Your task to perform on an android device: Install the Uber app Image 0: 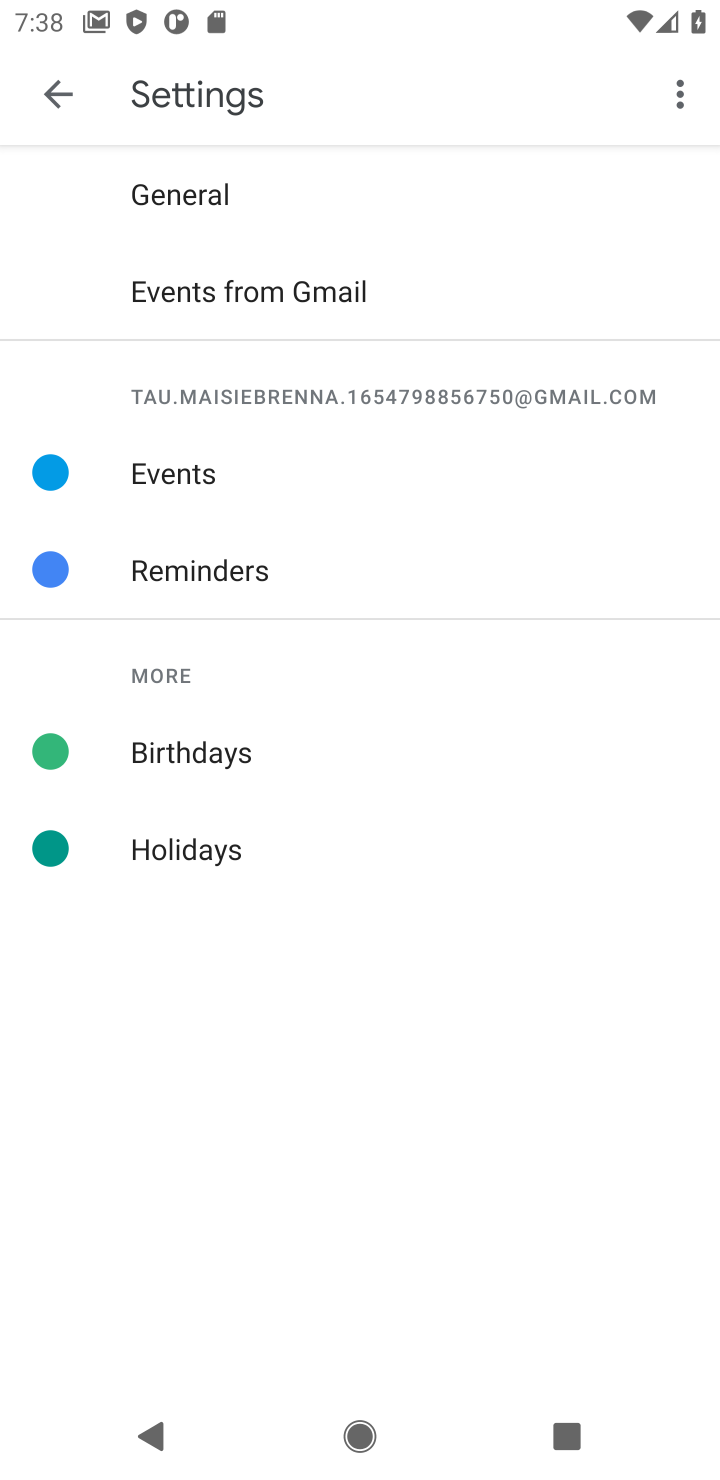
Step 0: press home button
Your task to perform on an android device: Install the Uber app Image 1: 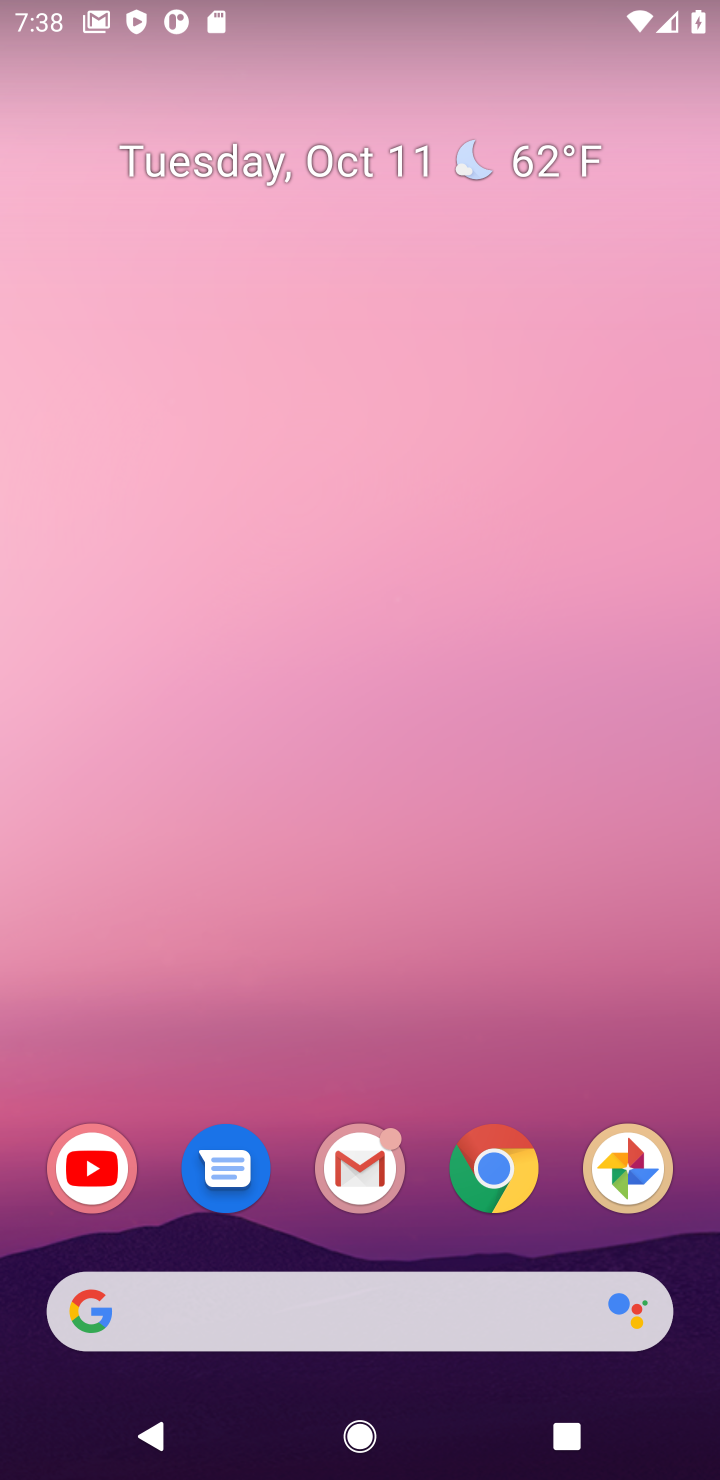
Step 1: drag from (381, 1042) to (457, 552)
Your task to perform on an android device: Install the Uber app Image 2: 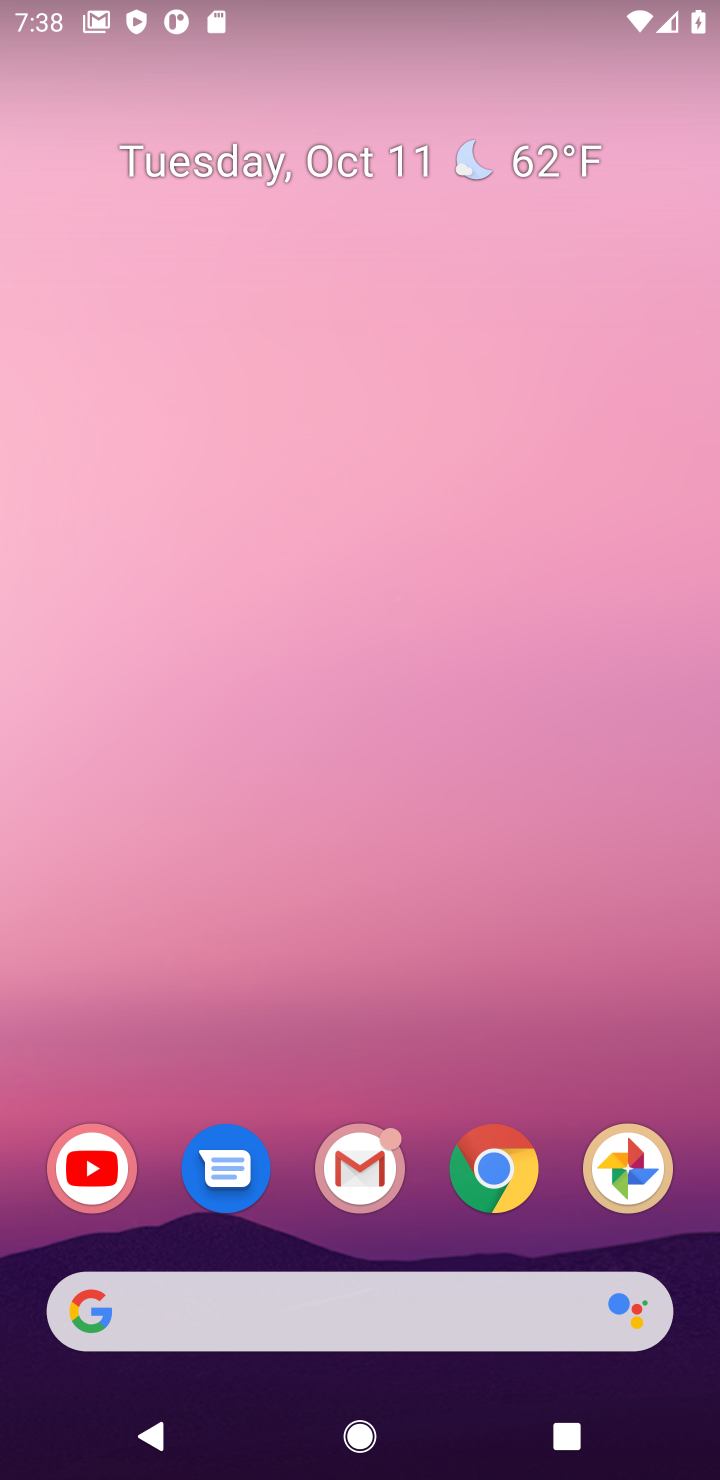
Step 2: click (398, 42)
Your task to perform on an android device: Install the Uber app Image 3: 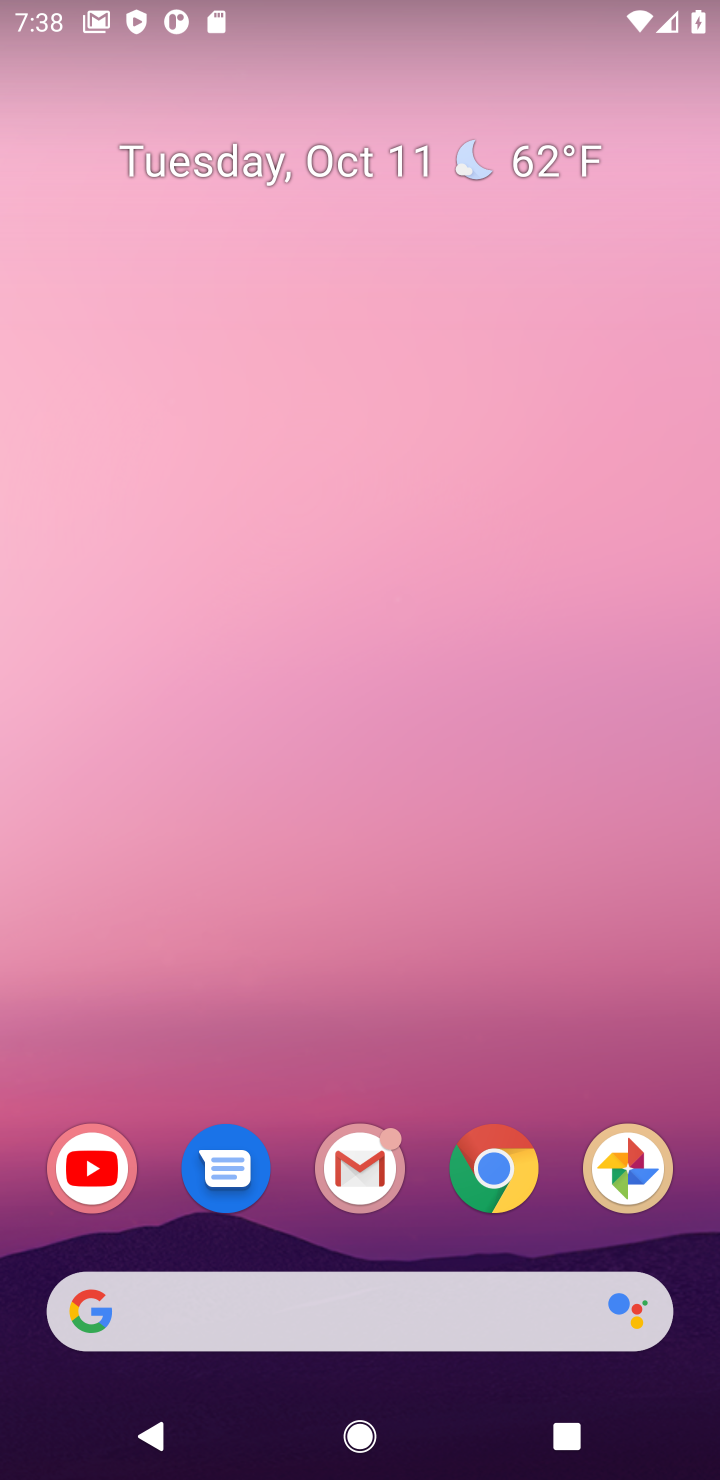
Step 3: drag from (284, 956) to (353, 480)
Your task to perform on an android device: Install the Uber app Image 4: 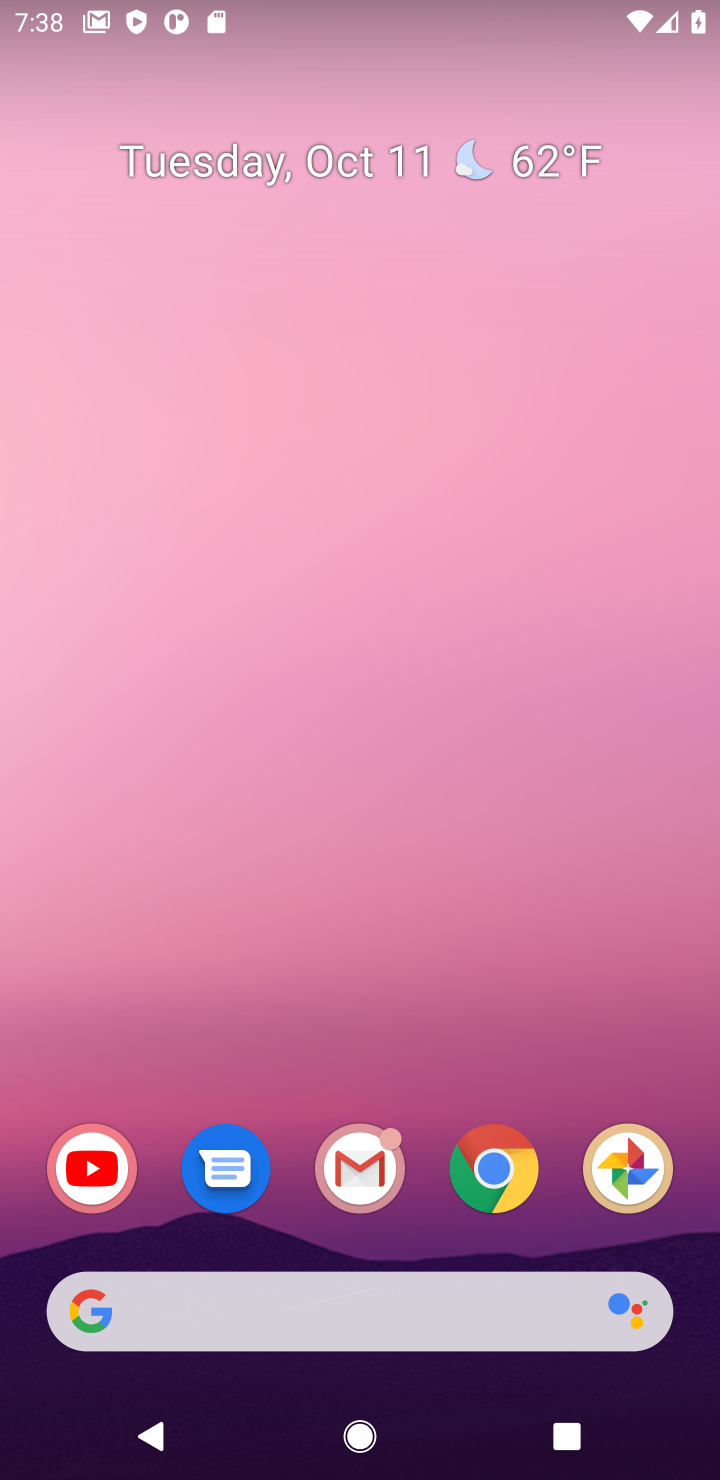
Step 4: drag from (419, 567) to (430, 330)
Your task to perform on an android device: Install the Uber app Image 5: 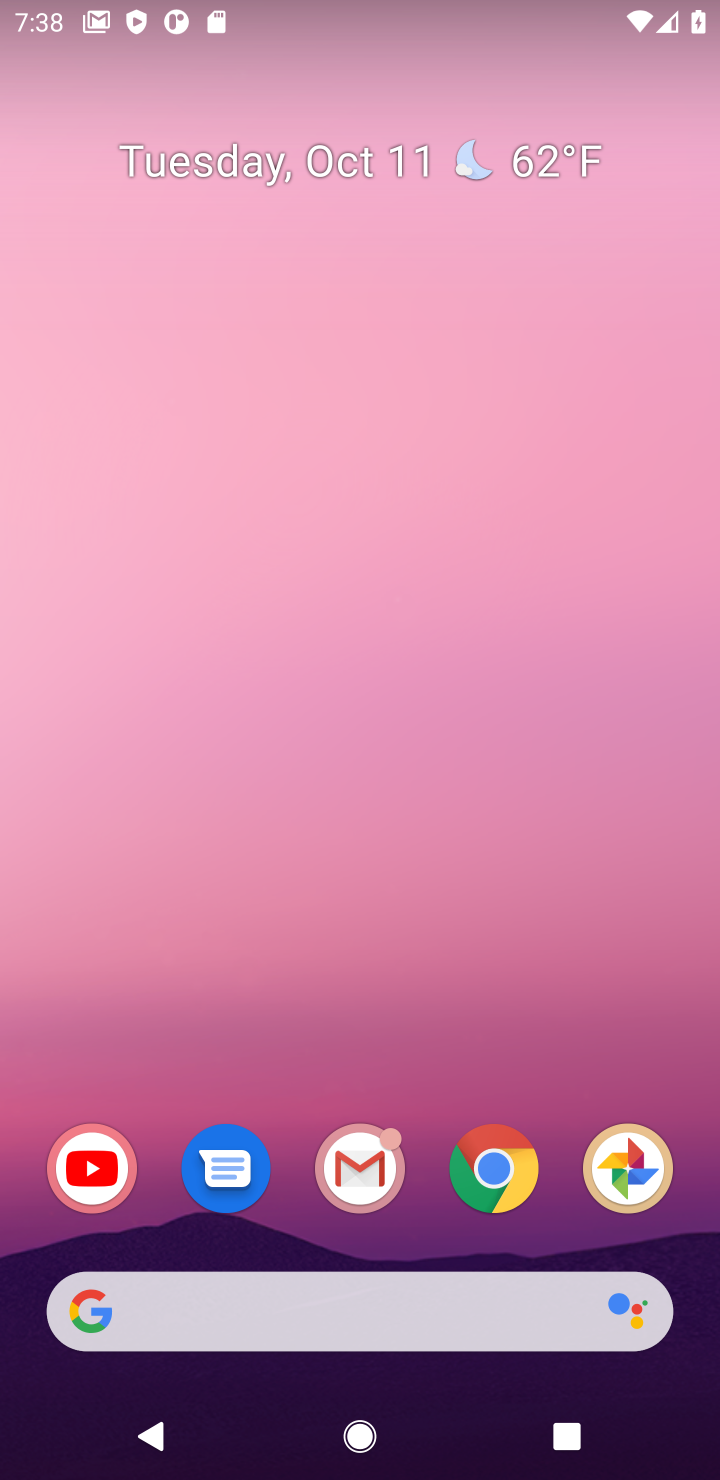
Step 5: drag from (467, 958) to (431, 255)
Your task to perform on an android device: Install the Uber app Image 6: 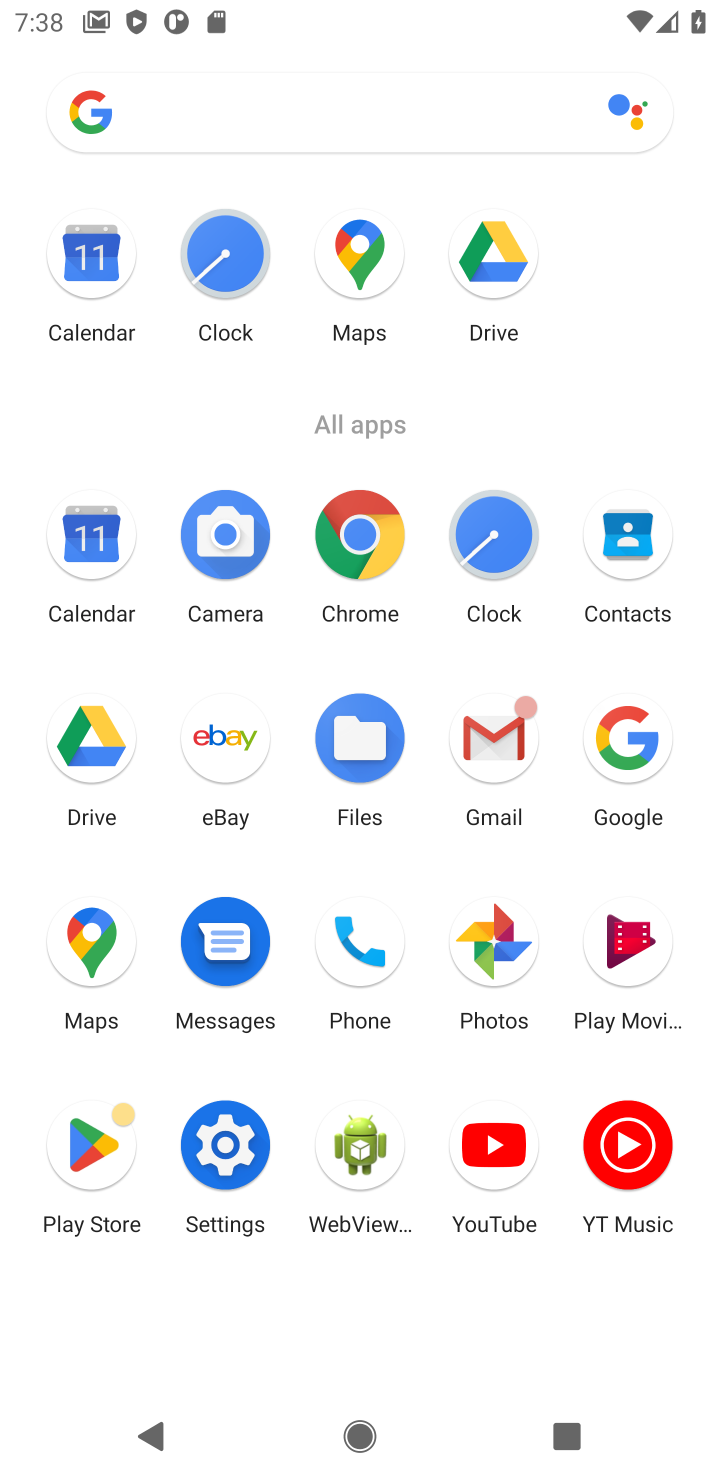
Step 6: click (78, 1158)
Your task to perform on an android device: Install the Uber app Image 7: 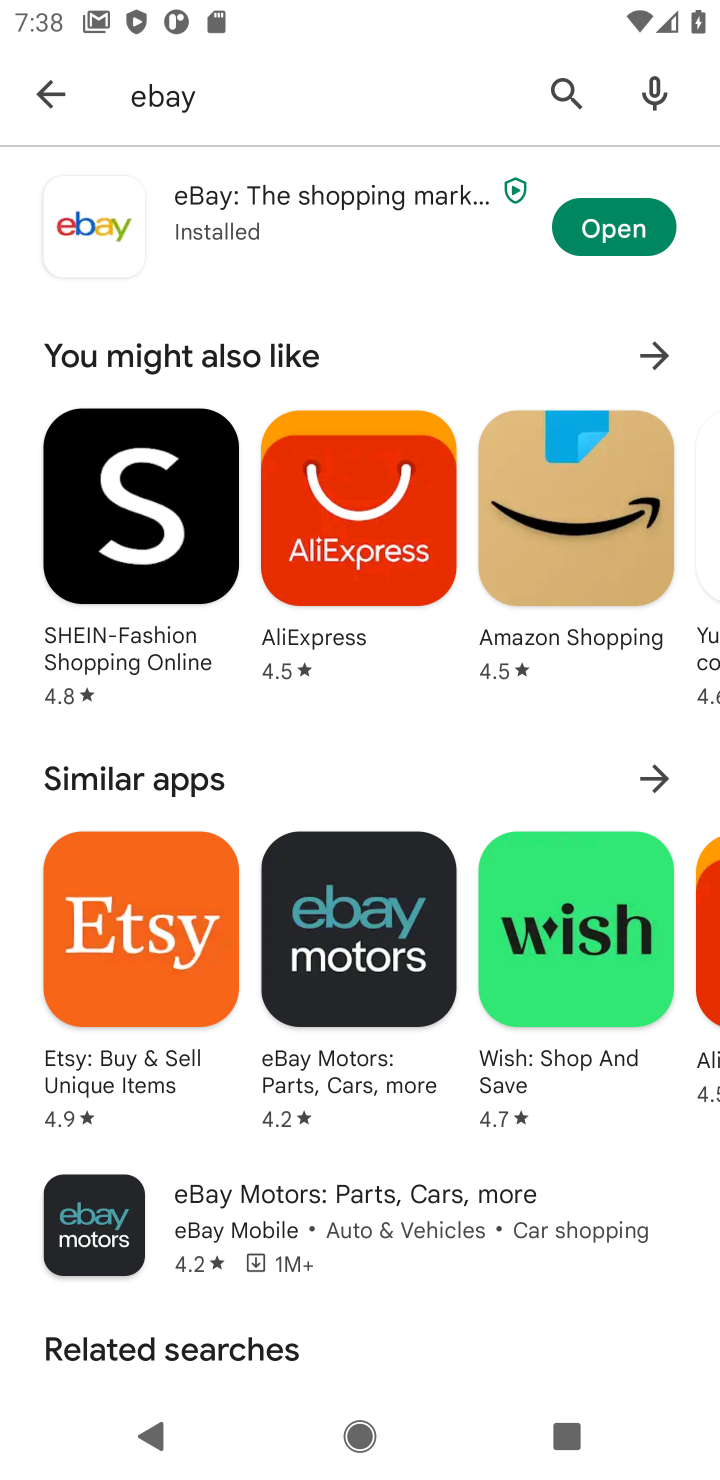
Step 7: click (560, 98)
Your task to perform on an android device: Install the Uber app Image 8: 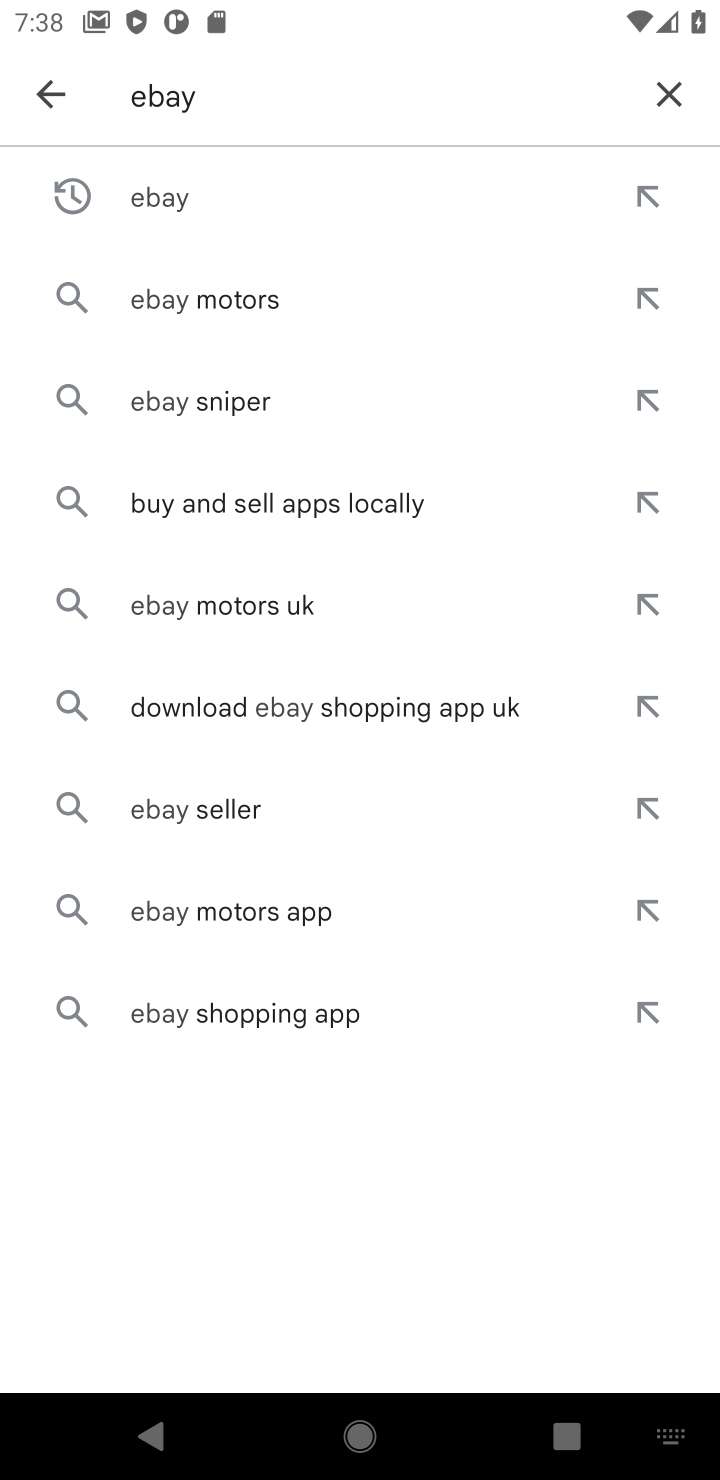
Step 8: click (669, 95)
Your task to perform on an android device: Install the Uber app Image 9: 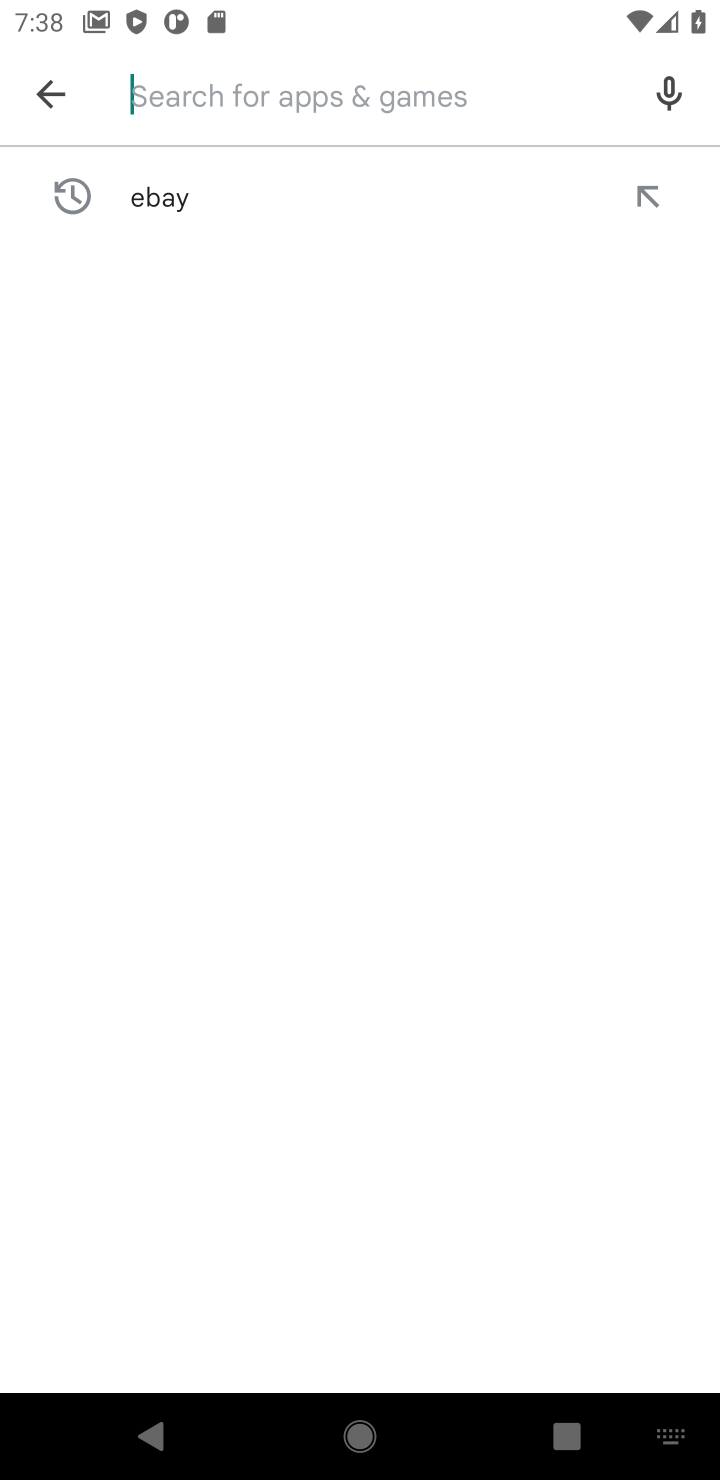
Step 9: type "uber"
Your task to perform on an android device: Install the Uber app Image 10: 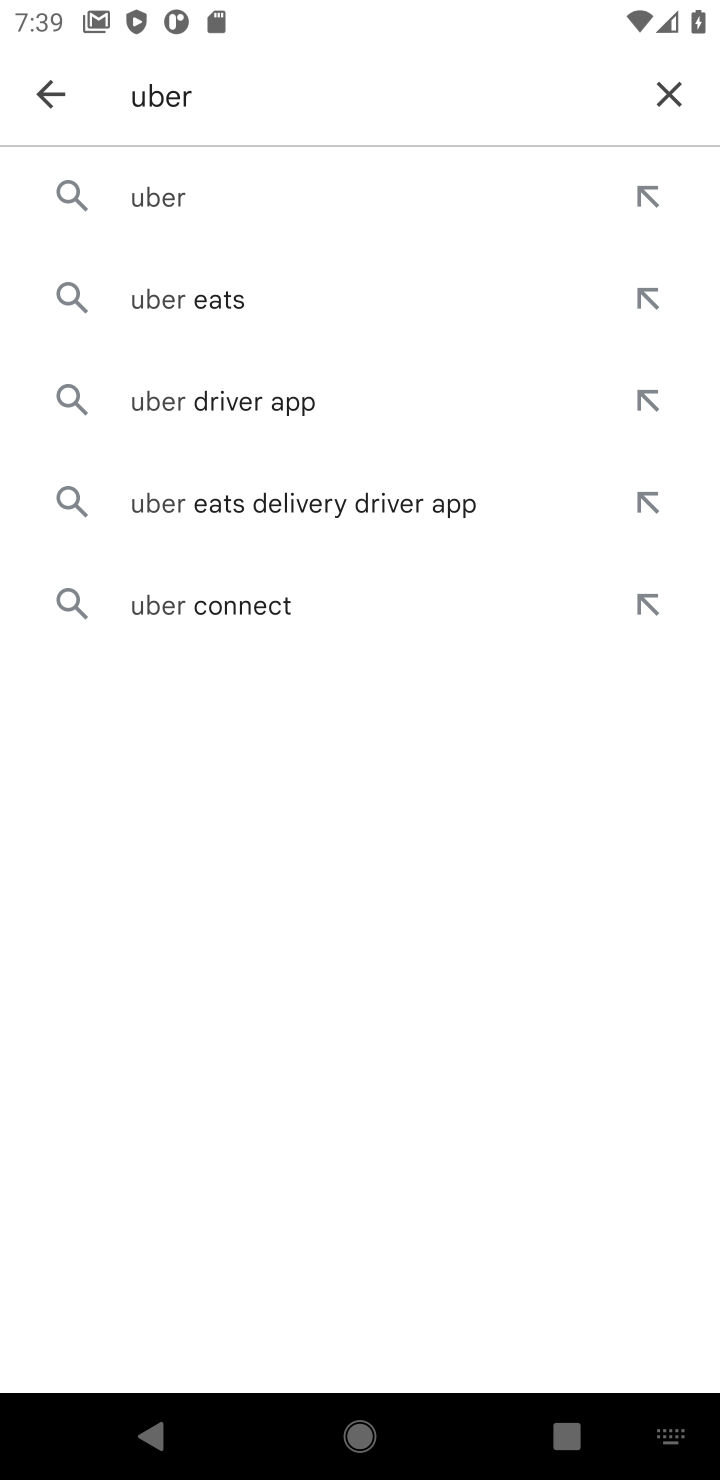
Step 10: click (197, 397)
Your task to perform on an android device: Install the Uber app Image 11: 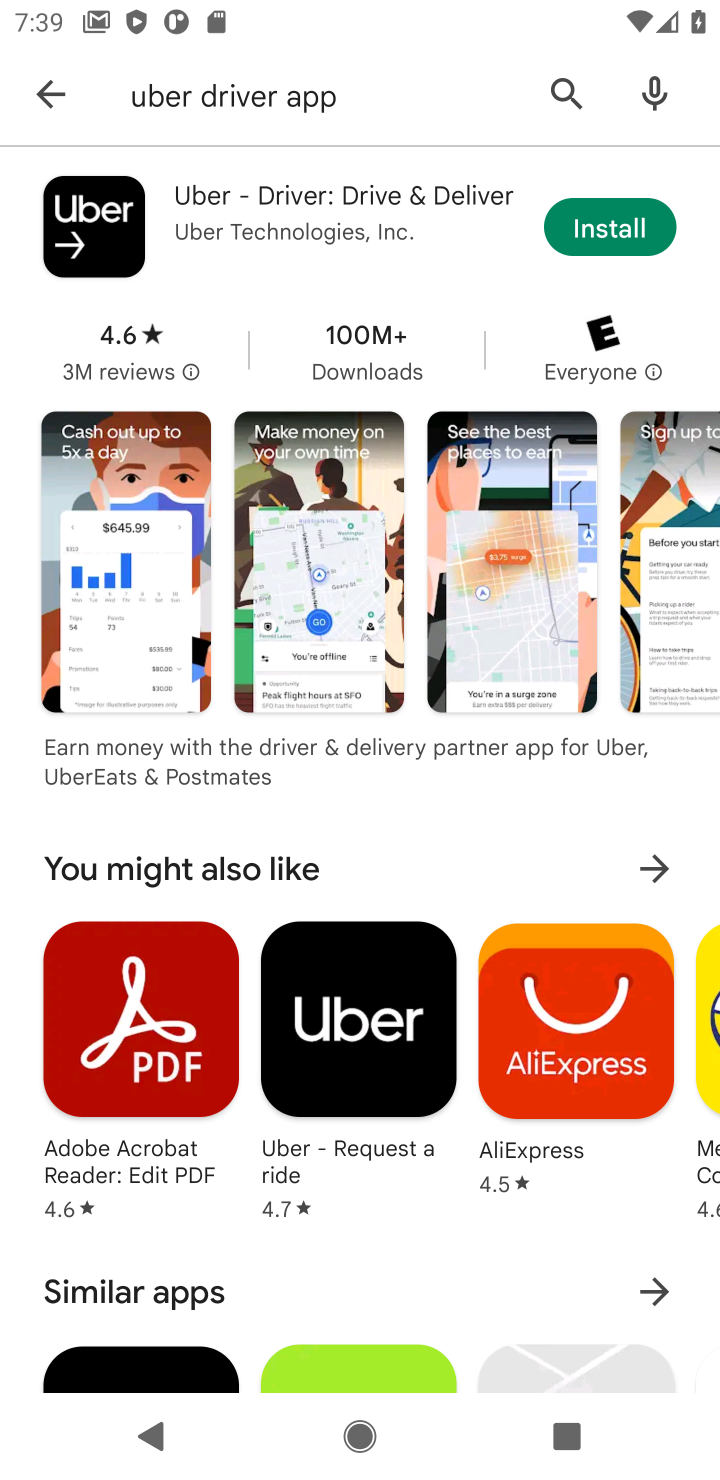
Step 11: click (595, 218)
Your task to perform on an android device: Install the Uber app Image 12: 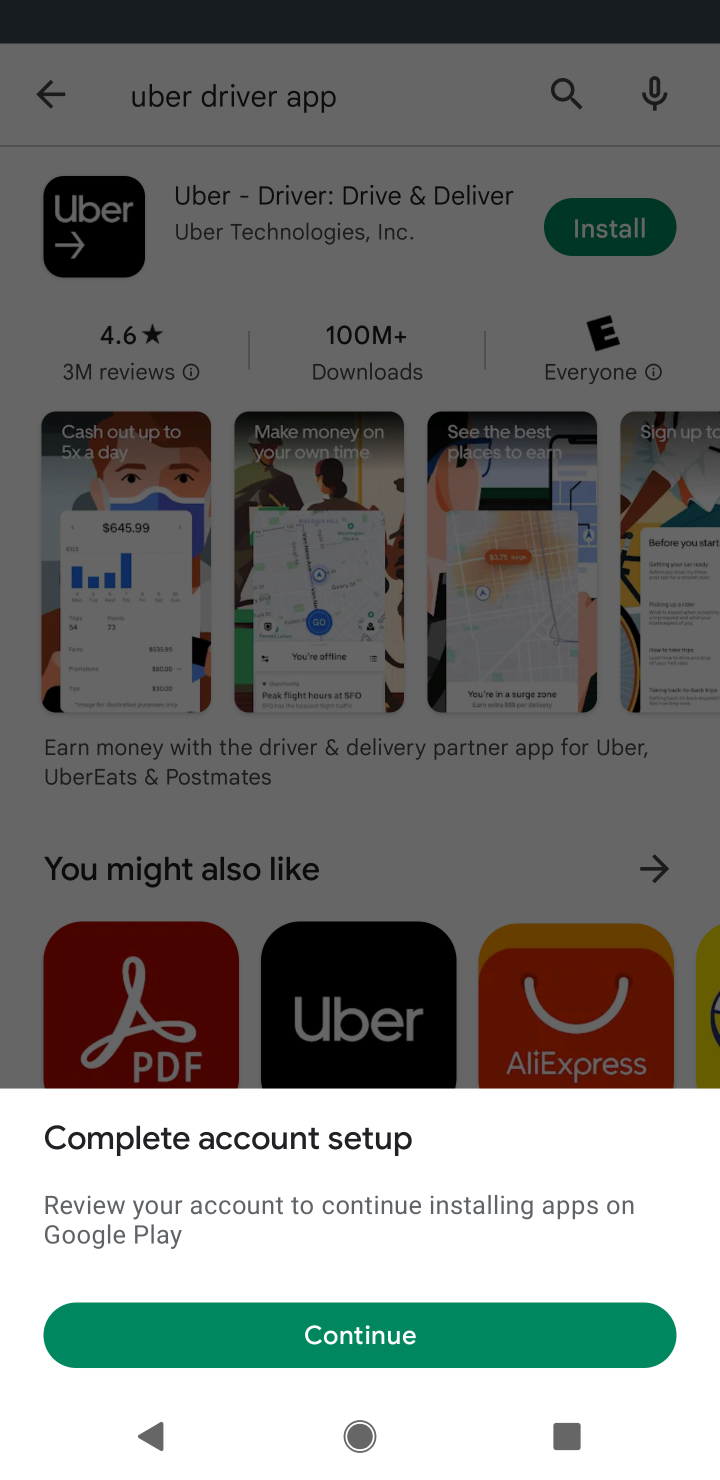
Step 12: click (591, 227)
Your task to perform on an android device: Install the Uber app Image 13: 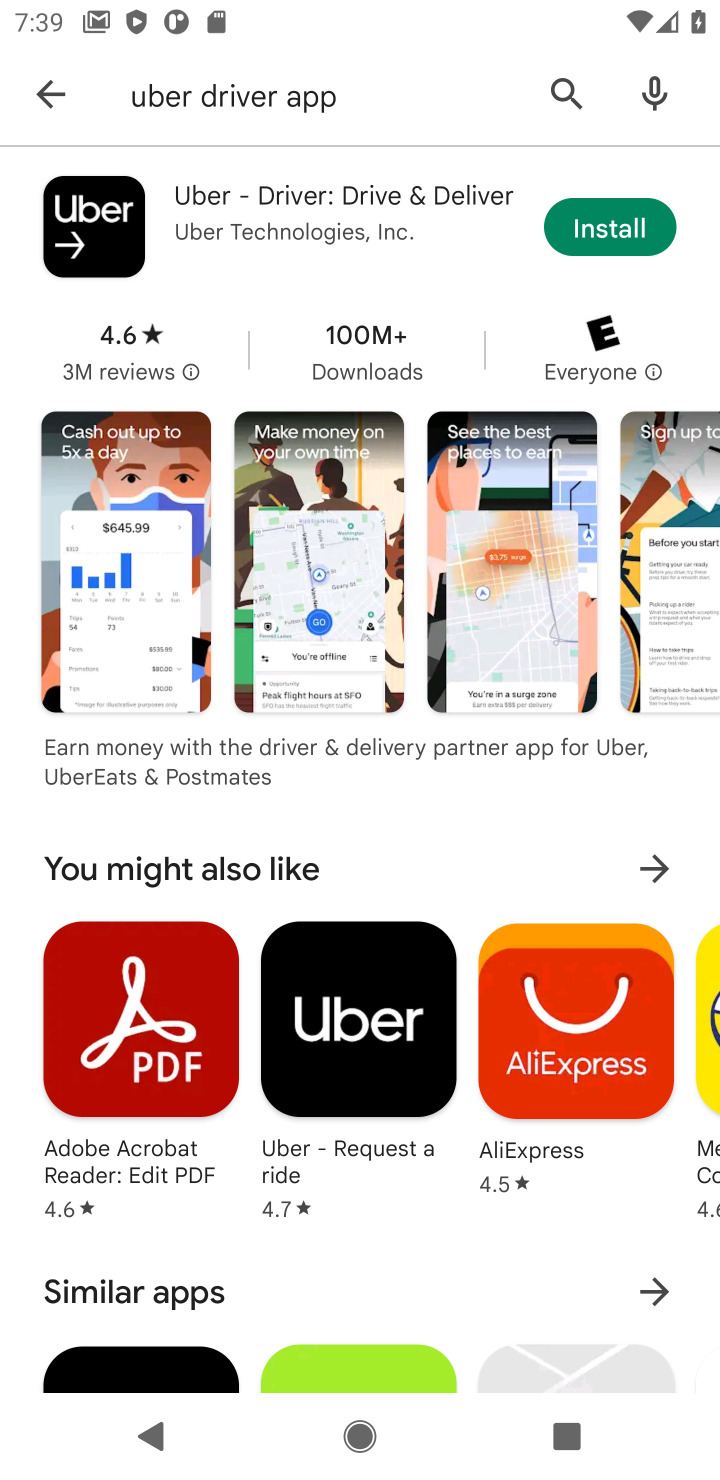
Step 13: click (606, 239)
Your task to perform on an android device: Install the Uber app Image 14: 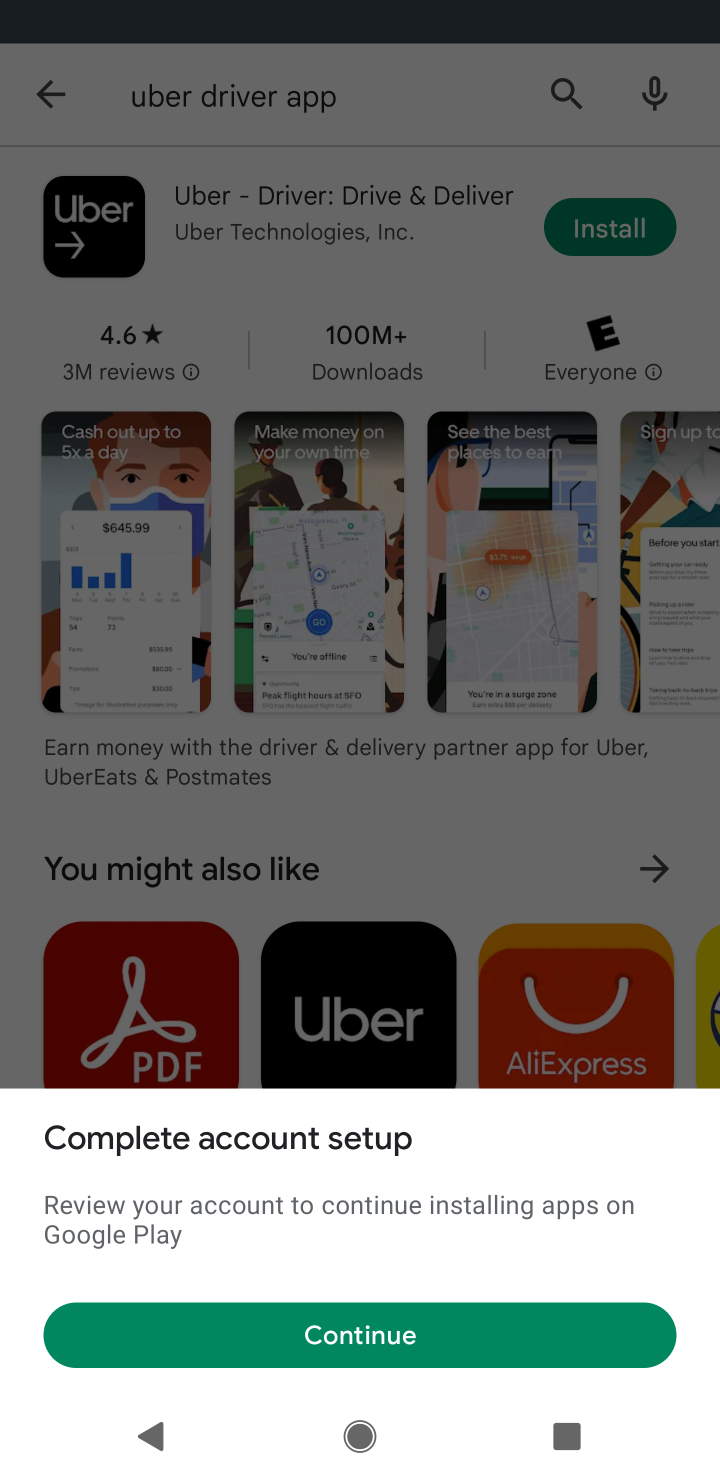
Step 14: click (351, 1331)
Your task to perform on an android device: Install the Uber app Image 15: 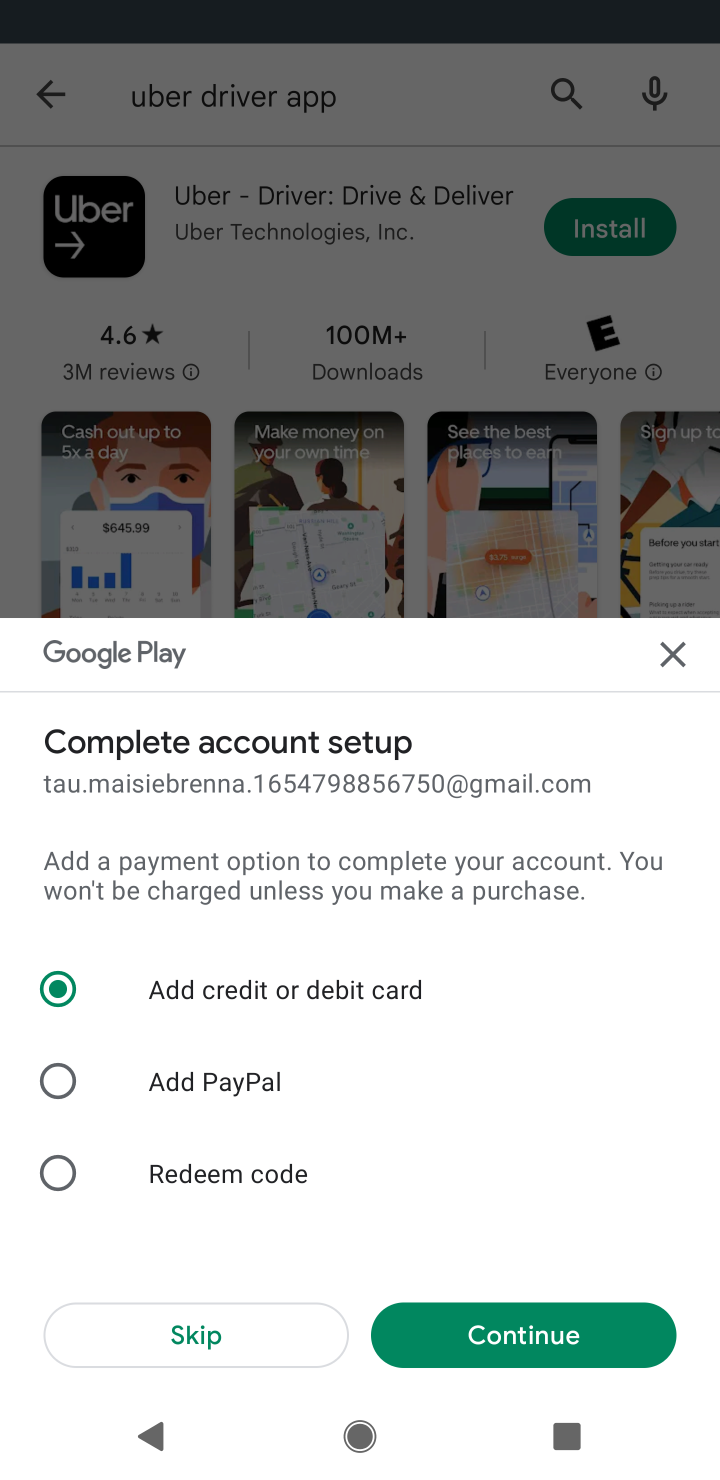
Step 15: click (188, 1342)
Your task to perform on an android device: Install the Uber app Image 16: 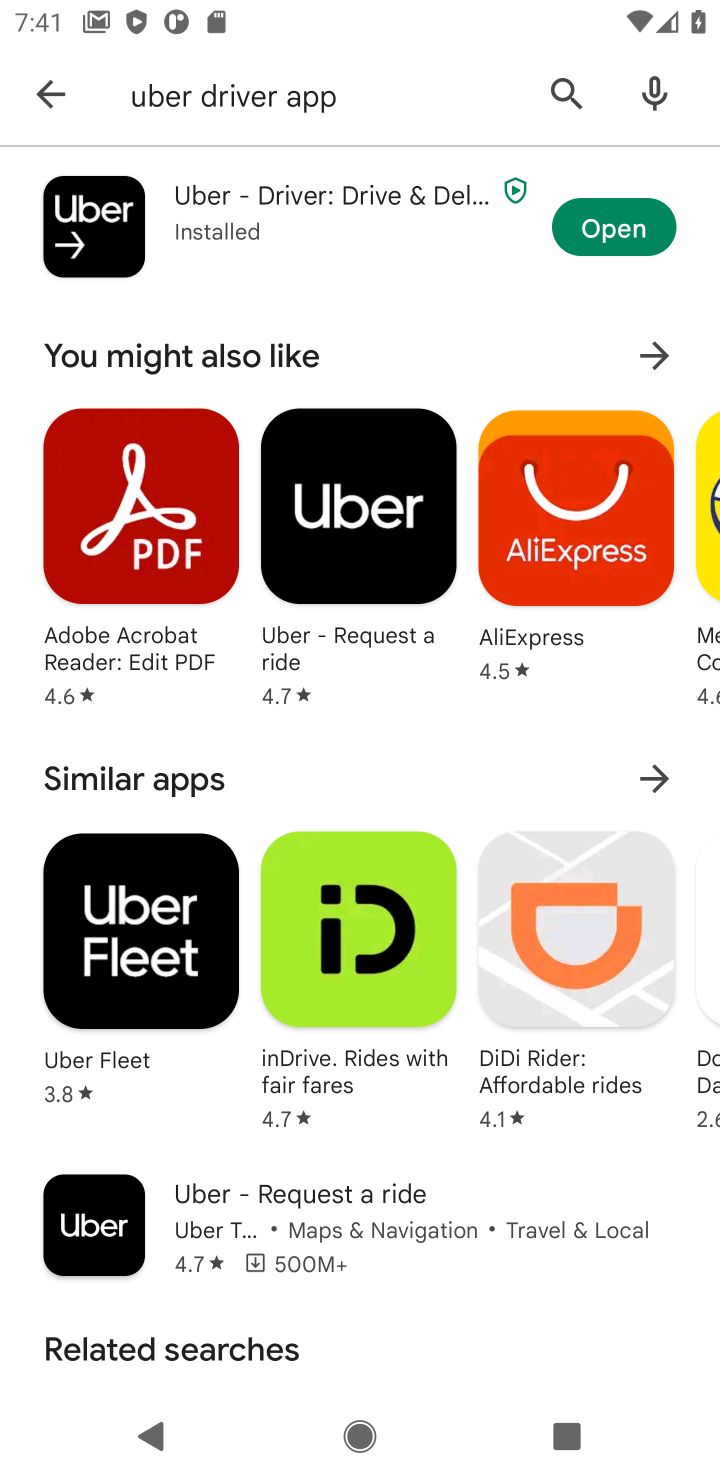
Step 16: click (619, 232)
Your task to perform on an android device: Install the Uber app Image 17: 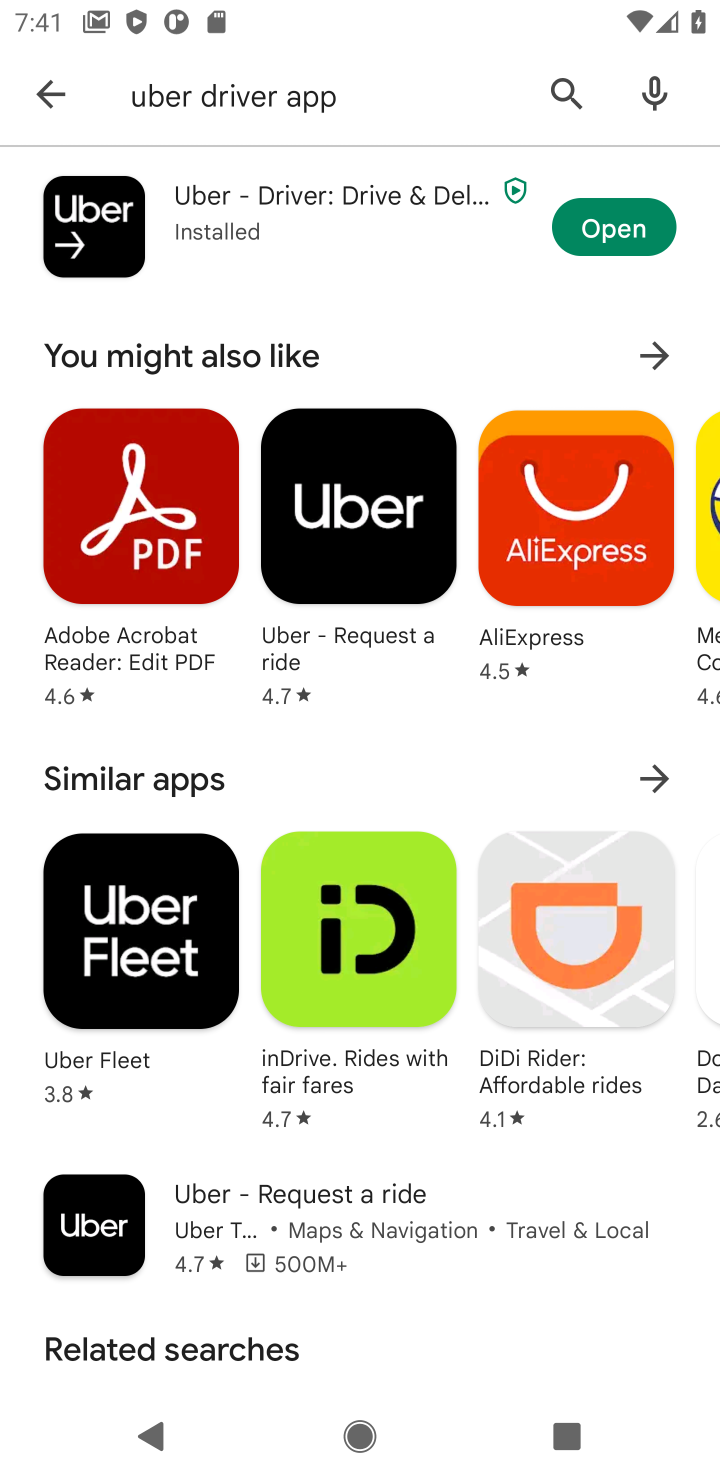
Step 17: task complete